Your task to perform on an android device: check out phone information Image 0: 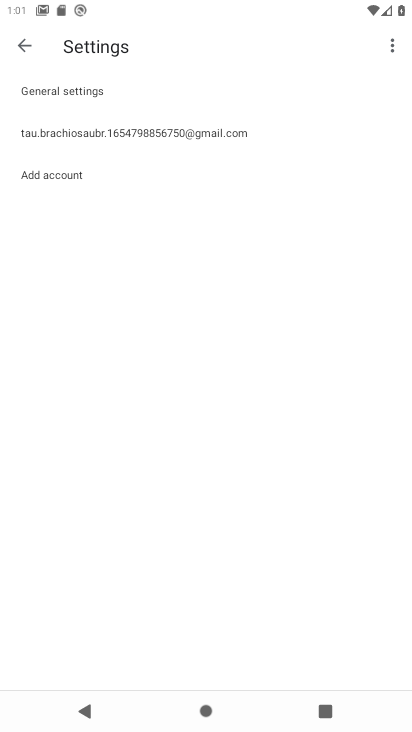
Step 0: press home button
Your task to perform on an android device: check out phone information Image 1: 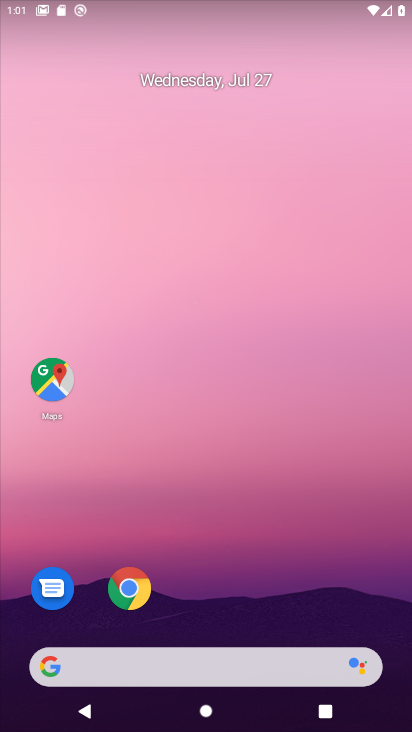
Step 1: drag from (249, 615) to (293, 46)
Your task to perform on an android device: check out phone information Image 2: 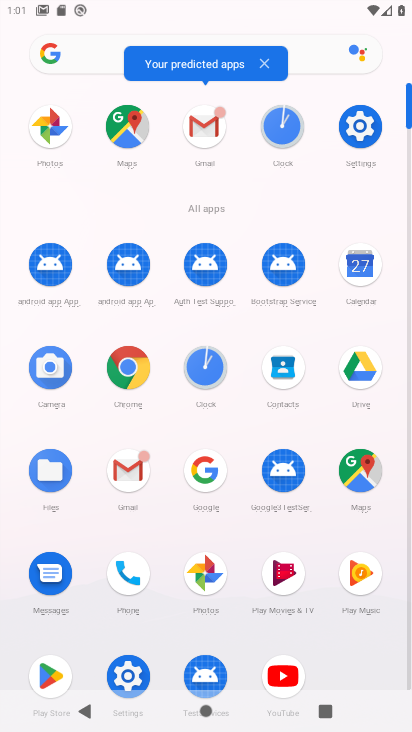
Step 2: click (362, 136)
Your task to perform on an android device: check out phone information Image 3: 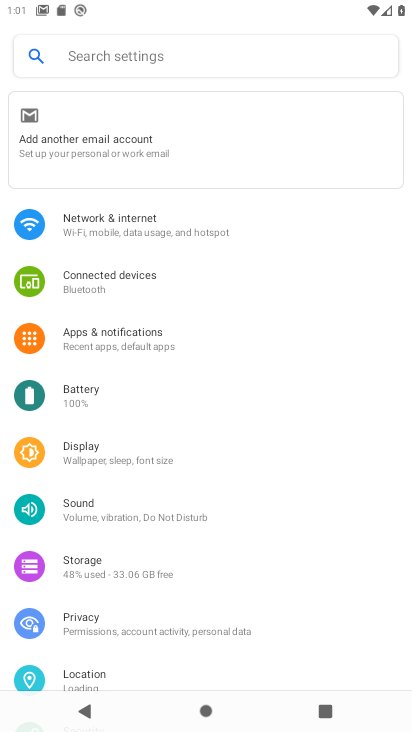
Step 3: drag from (195, 676) to (206, 3)
Your task to perform on an android device: check out phone information Image 4: 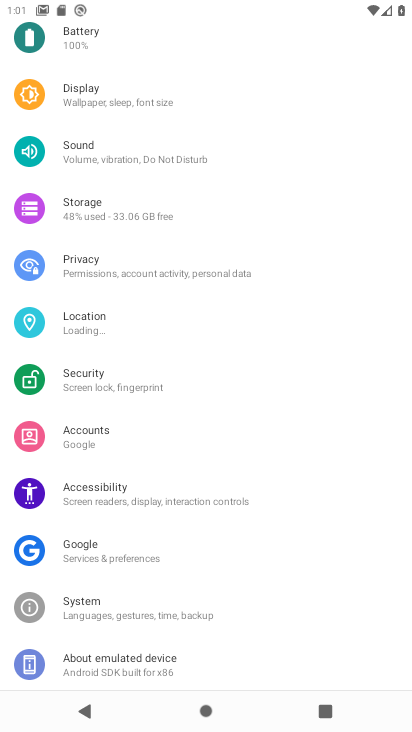
Step 4: click (124, 655)
Your task to perform on an android device: check out phone information Image 5: 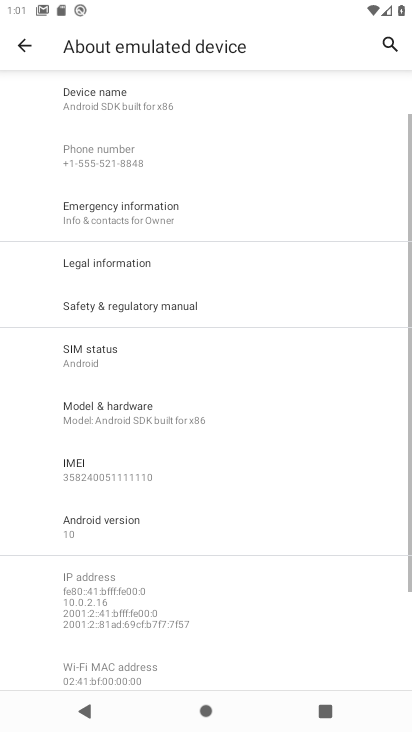
Step 5: task complete